Your task to perform on an android device: Show me popular videos on Youtube Image 0: 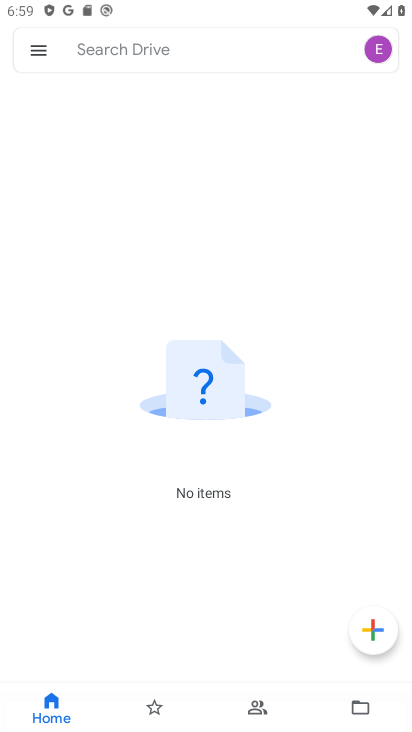
Step 0: press home button
Your task to perform on an android device: Show me popular videos on Youtube Image 1: 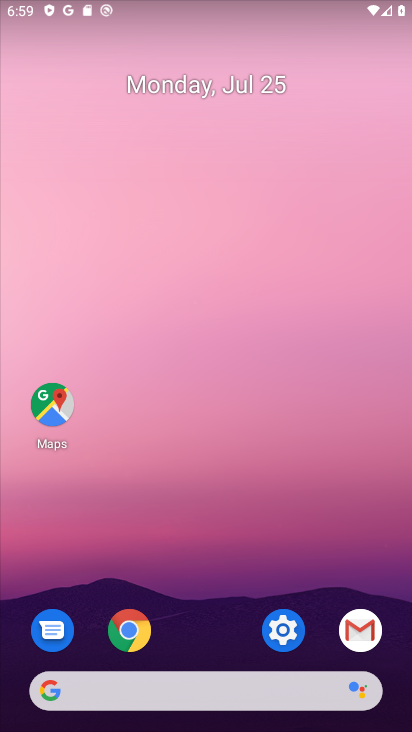
Step 1: drag from (303, 685) to (274, 19)
Your task to perform on an android device: Show me popular videos on Youtube Image 2: 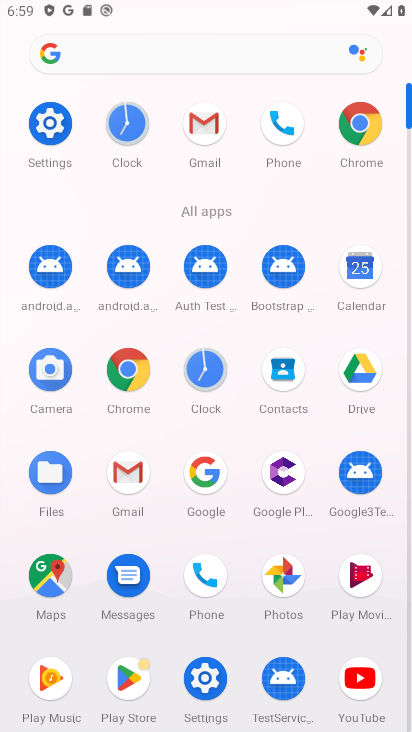
Step 2: click (353, 678)
Your task to perform on an android device: Show me popular videos on Youtube Image 3: 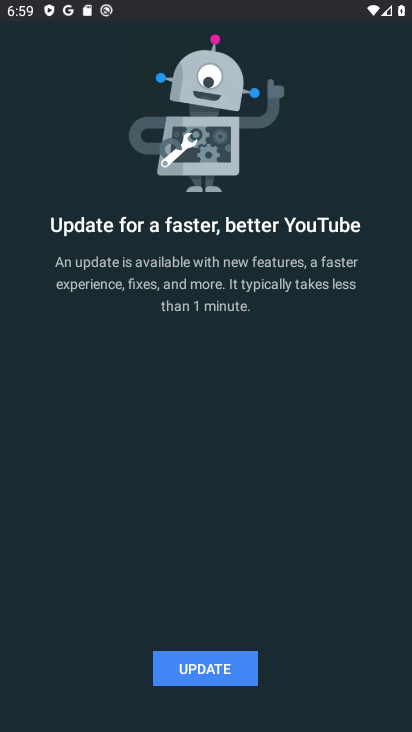
Step 3: click (208, 676)
Your task to perform on an android device: Show me popular videos on Youtube Image 4: 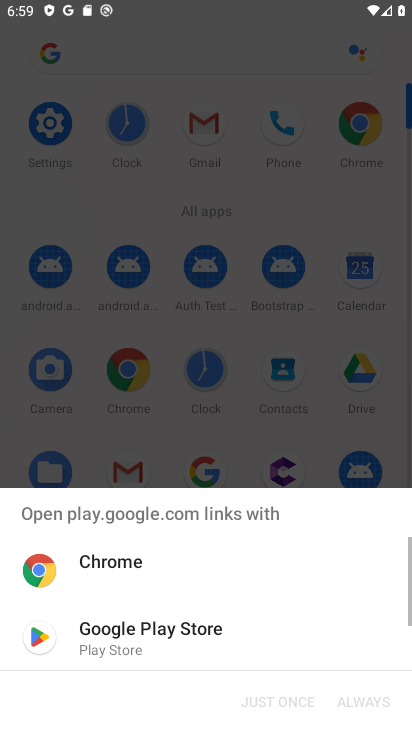
Step 4: click (192, 638)
Your task to perform on an android device: Show me popular videos on Youtube Image 5: 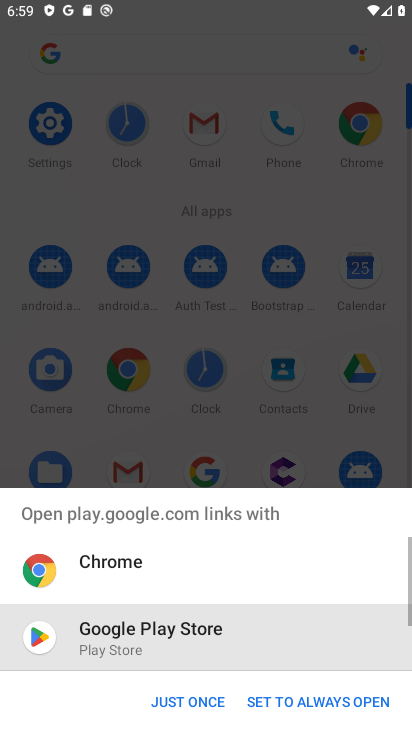
Step 5: click (180, 697)
Your task to perform on an android device: Show me popular videos on Youtube Image 6: 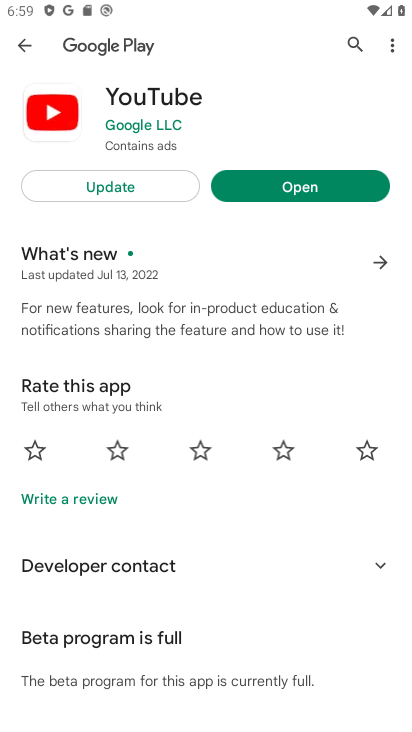
Step 6: click (113, 197)
Your task to perform on an android device: Show me popular videos on Youtube Image 7: 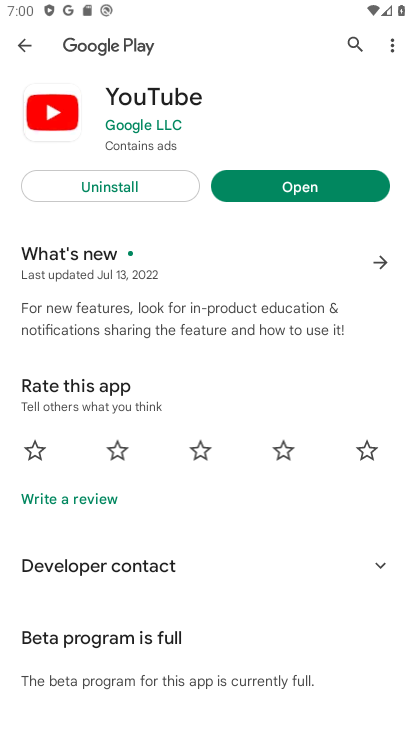
Step 7: click (290, 194)
Your task to perform on an android device: Show me popular videos on Youtube Image 8: 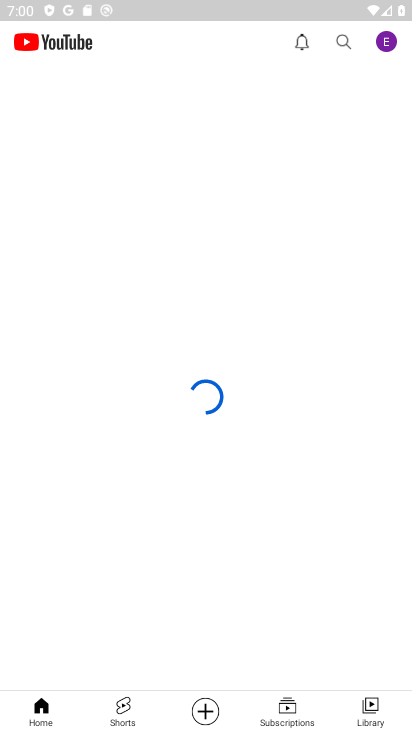
Step 8: click (336, 46)
Your task to perform on an android device: Show me popular videos on Youtube Image 9: 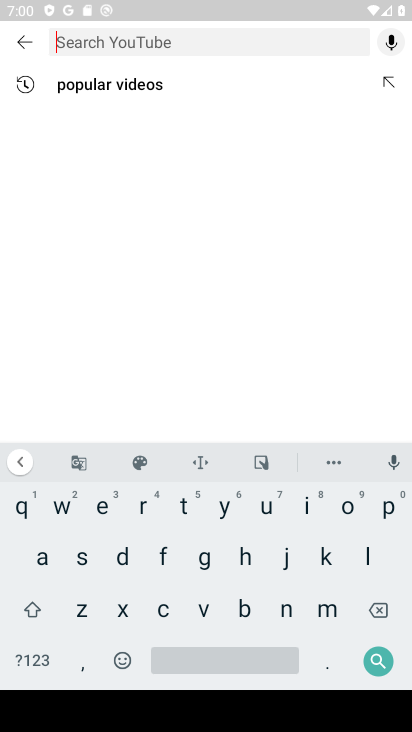
Step 9: click (387, 509)
Your task to perform on an android device: Show me popular videos on Youtube Image 10: 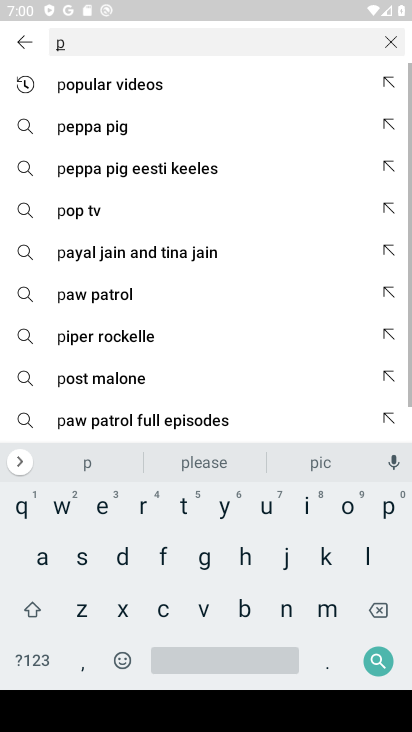
Step 10: click (101, 87)
Your task to perform on an android device: Show me popular videos on Youtube Image 11: 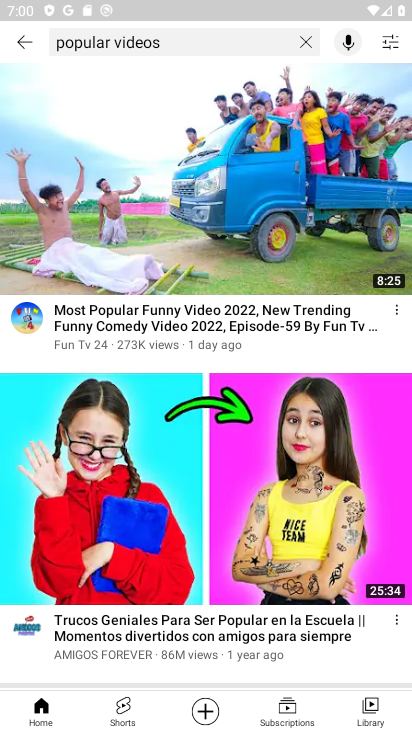
Step 11: task complete